Your task to perform on an android device: Open Chrome and go to settings Image 0: 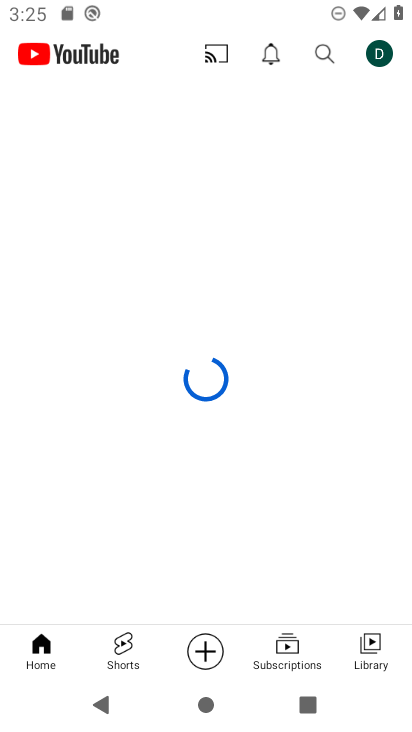
Step 0: press home button
Your task to perform on an android device: Open Chrome and go to settings Image 1: 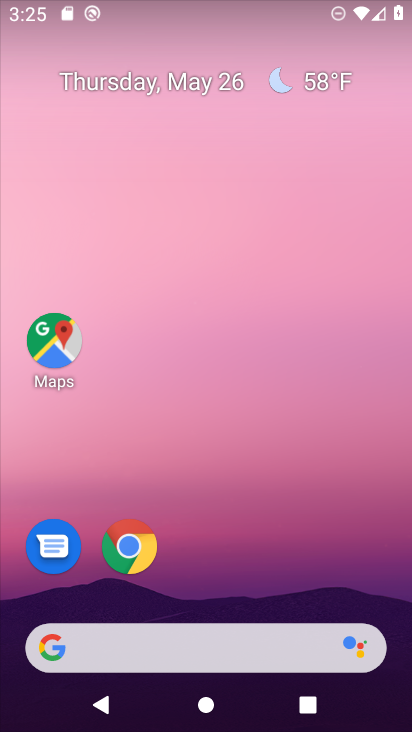
Step 1: drag from (210, 594) to (227, 81)
Your task to perform on an android device: Open Chrome and go to settings Image 2: 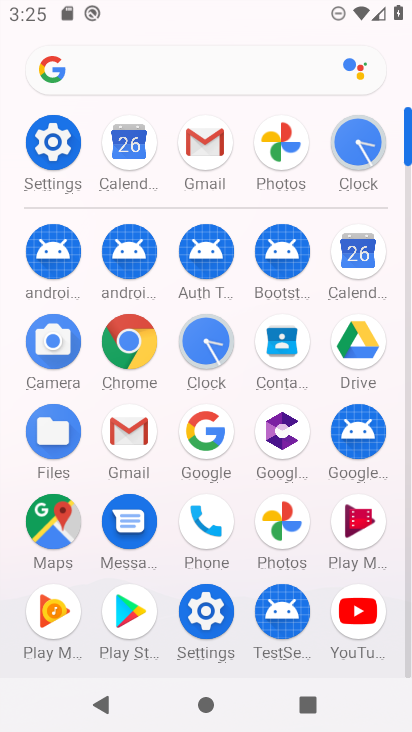
Step 2: click (53, 136)
Your task to perform on an android device: Open Chrome and go to settings Image 3: 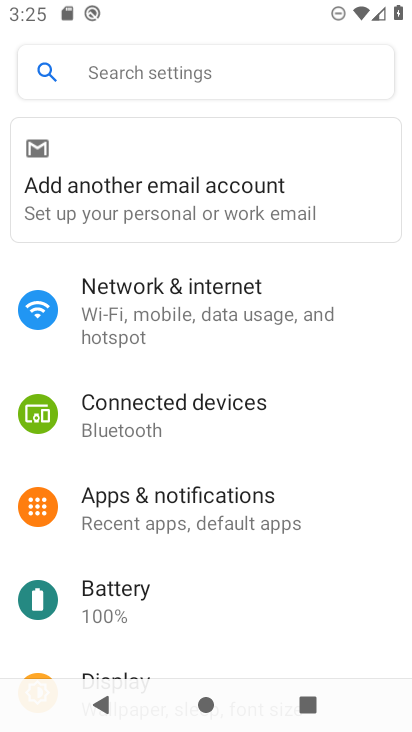
Step 3: press home button
Your task to perform on an android device: Open Chrome and go to settings Image 4: 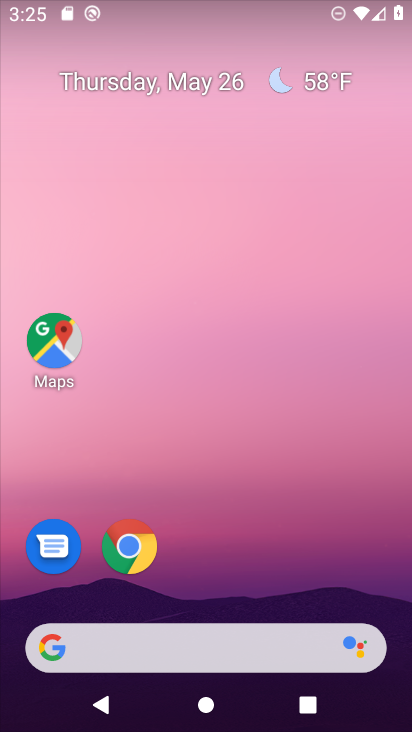
Step 4: click (124, 542)
Your task to perform on an android device: Open Chrome and go to settings Image 5: 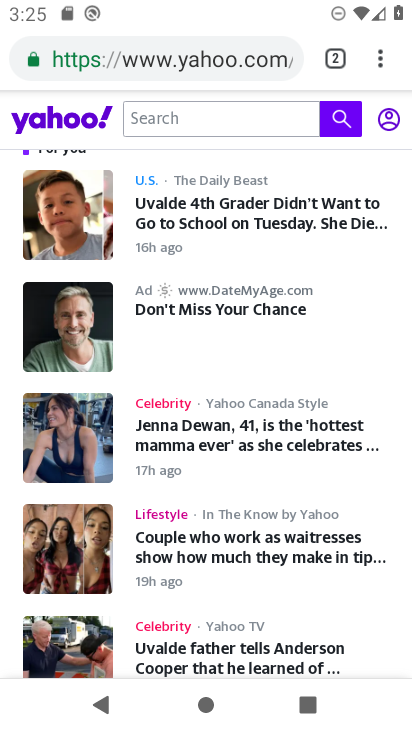
Step 5: click (383, 55)
Your task to perform on an android device: Open Chrome and go to settings Image 6: 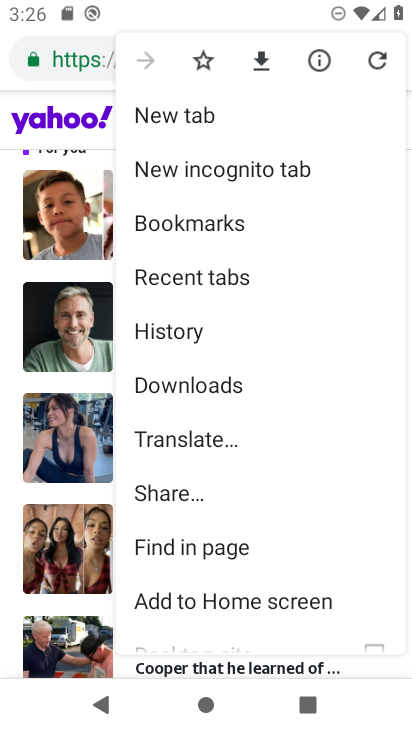
Step 6: drag from (221, 566) to (229, 123)
Your task to perform on an android device: Open Chrome and go to settings Image 7: 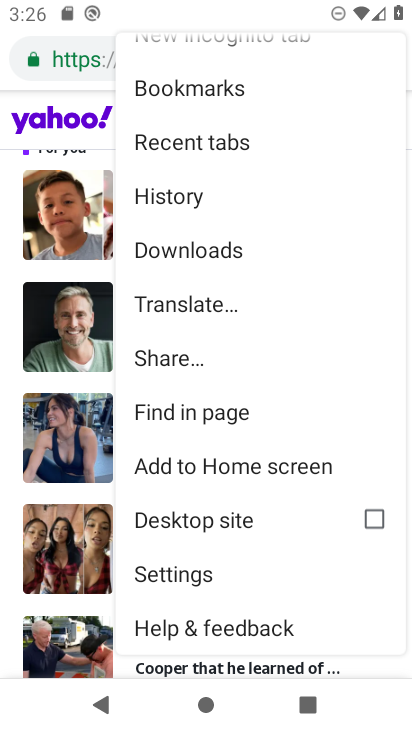
Step 7: click (217, 570)
Your task to perform on an android device: Open Chrome and go to settings Image 8: 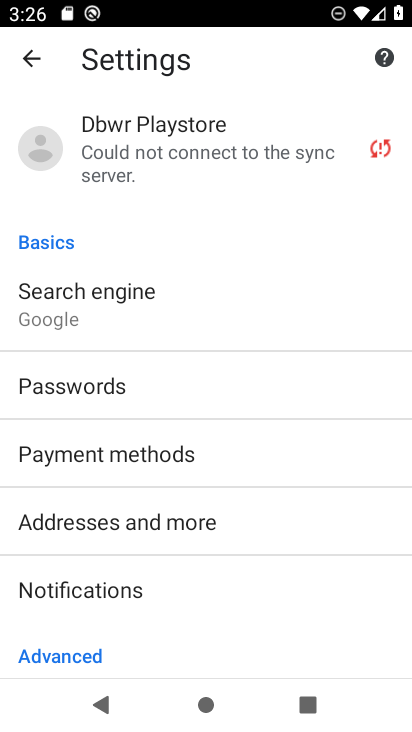
Step 8: task complete